Your task to perform on an android device: turn on the 12-hour format for clock Image 0: 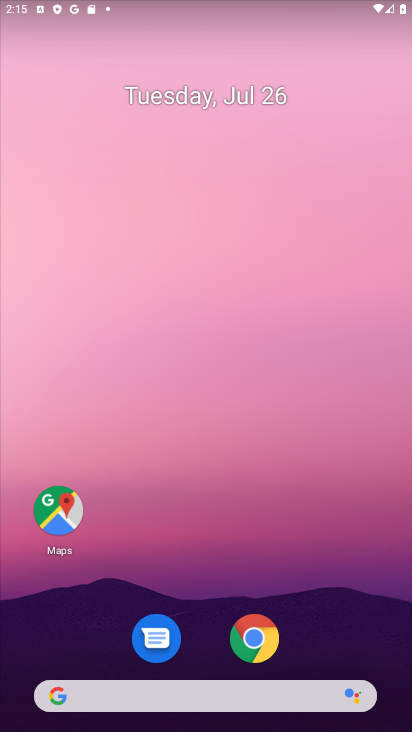
Step 0: drag from (164, 711) to (288, 72)
Your task to perform on an android device: turn on the 12-hour format for clock Image 1: 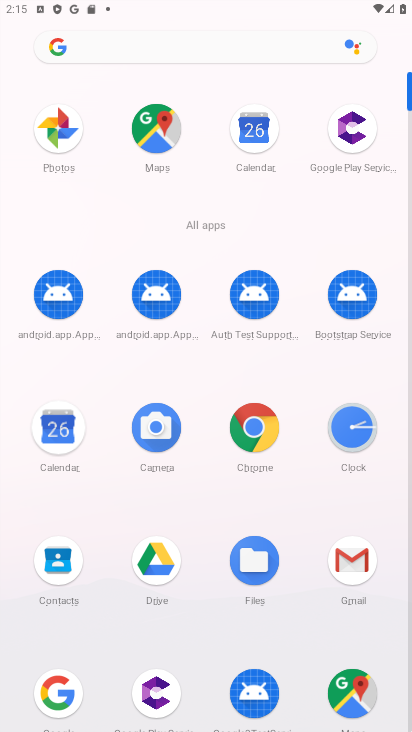
Step 1: click (352, 446)
Your task to perform on an android device: turn on the 12-hour format for clock Image 2: 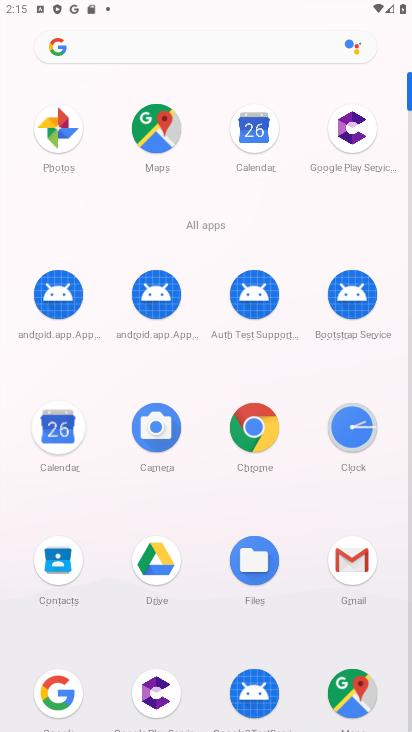
Step 2: click (352, 446)
Your task to perform on an android device: turn on the 12-hour format for clock Image 3: 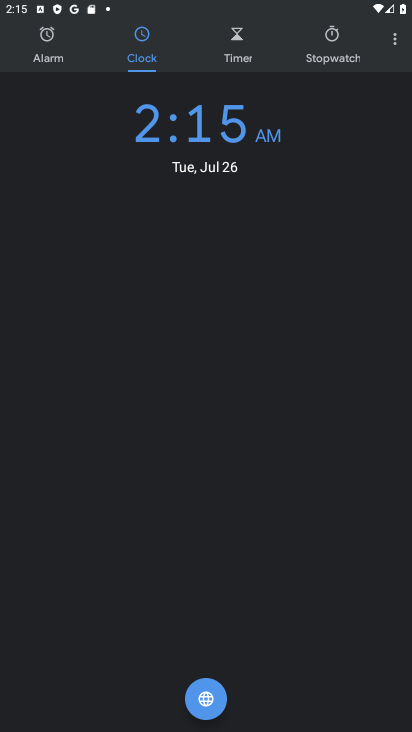
Step 3: click (398, 37)
Your task to perform on an android device: turn on the 12-hour format for clock Image 4: 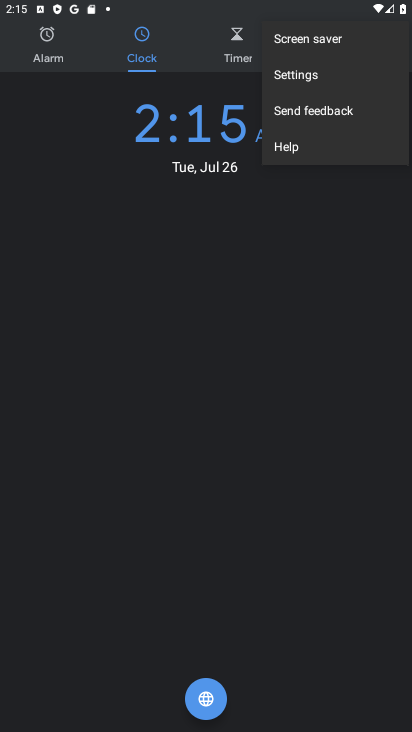
Step 4: click (322, 83)
Your task to perform on an android device: turn on the 12-hour format for clock Image 5: 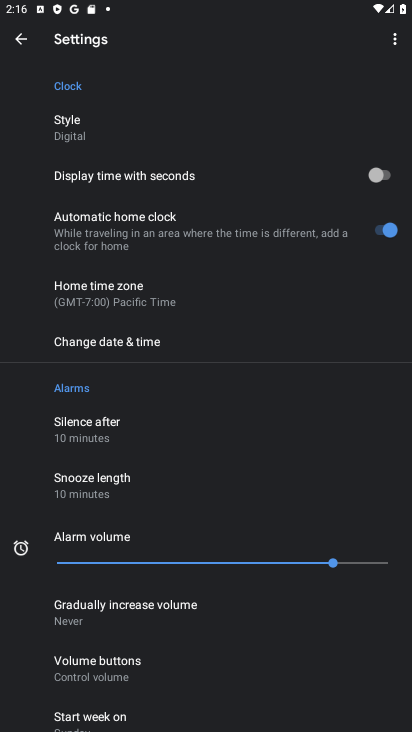
Step 5: click (191, 347)
Your task to perform on an android device: turn on the 12-hour format for clock Image 6: 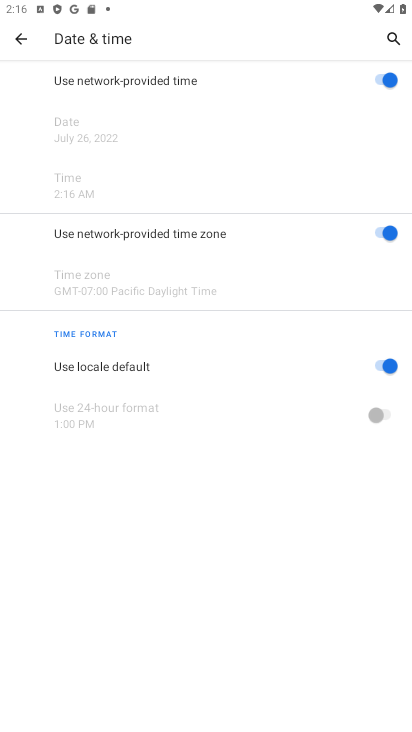
Step 6: task complete